Your task to perform on an android device: turn off priority inbox in the gmail app Image 0: 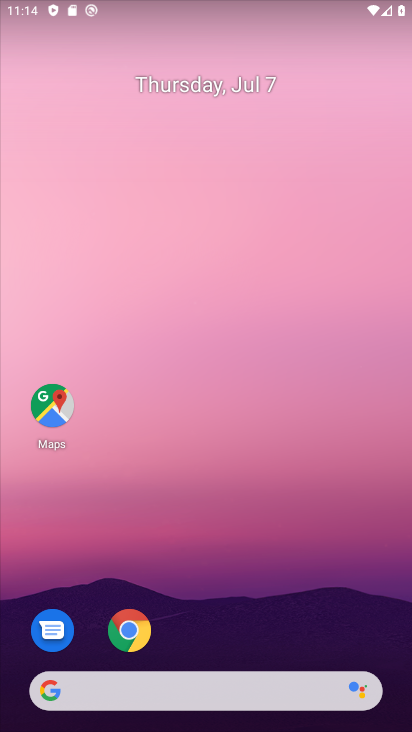
Step 0: drag from (385, 631) to (304, 118)
Your task to perform on an android device: turn off priority inbox in the gmail app Image 1: 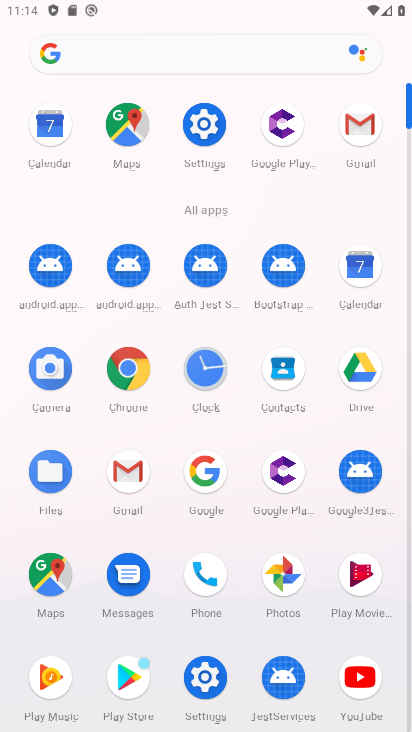
Step 1: click (129, 471)
Your task to perform on an android device: turn off priority inbox in the gmail app Image 2: 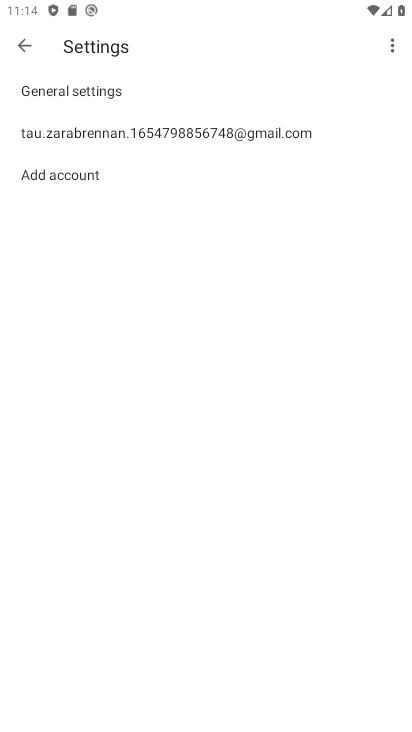
Step 2: press back button
Your task to perform on an android device: turn off priority inbox in the gmail app Image 3: 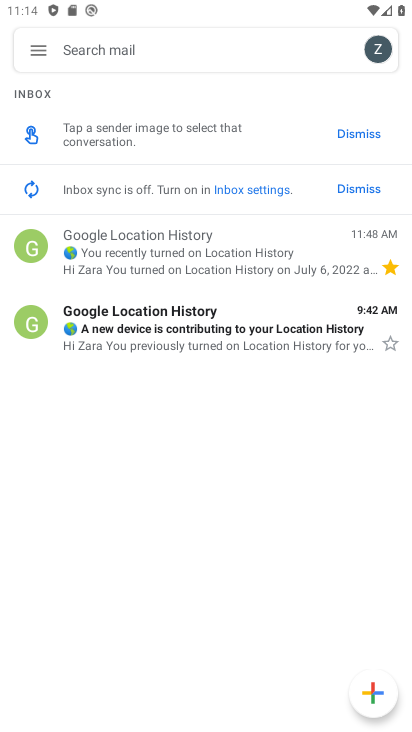
Step 3: click (40, 46)
Your task to perform on an android device: turn off priority inbox in the gmail app Image 4: 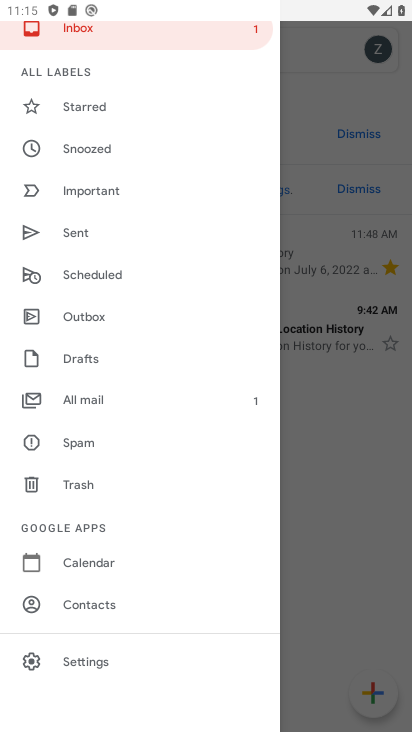
Step 4: click (80, 653)
Your task to perform on an android device: turn off priority inbox in the gmail app Image 5: 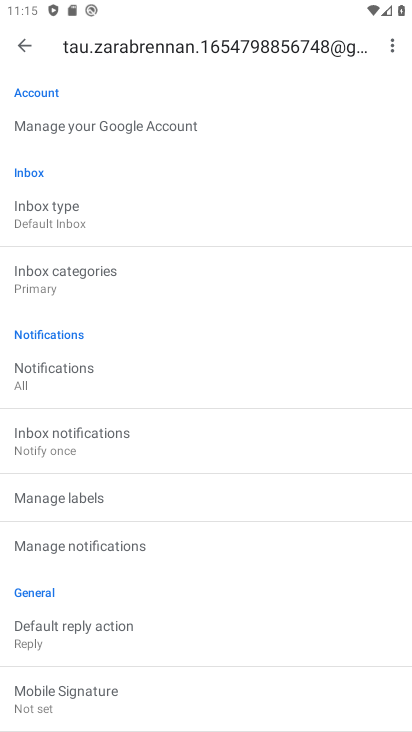
Step 5: click (48, 206)
Your task to perform on an android device: turn off priority inbox in the gmail app Image 6: 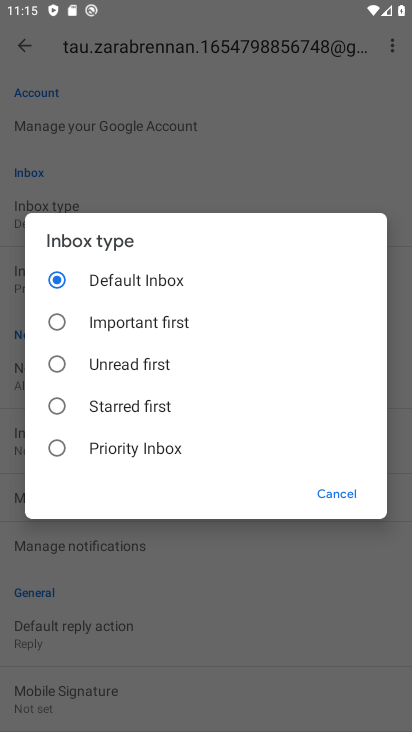
Step 6: task complete